Your task to perform on an android device: change alarm snooze length Image 0: 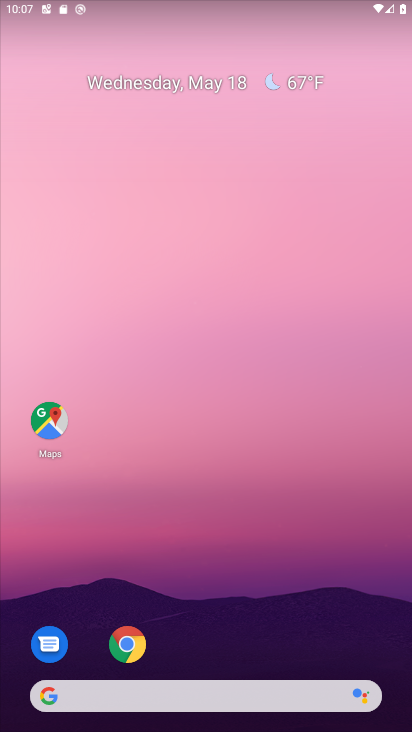
Step 0: drag from (253, 593) to (221, 174)
Your task to perform on an android device: change alarm snooze length Image 1: 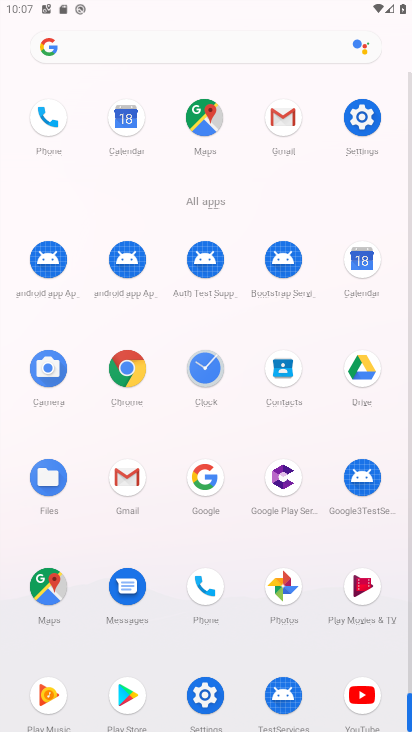
Step 1: click (207, 368)
Your task to perform on an android device: change alarm snooze length Image 2: 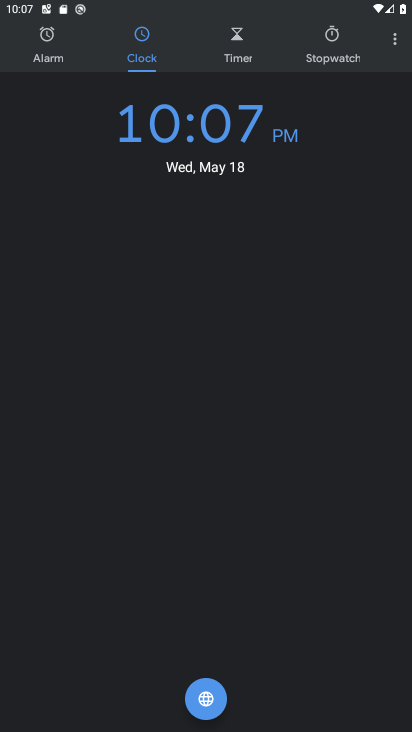
Step 2: click (397, 41)
Your task to perform on an android device: change alarm snooze length Image 3: 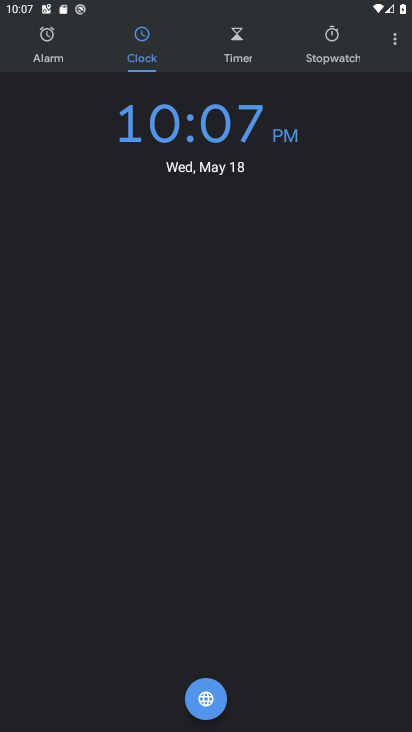
Step 3: click (397, 41)
Your task to perform on an android device: change alarm snooze length Image 4: 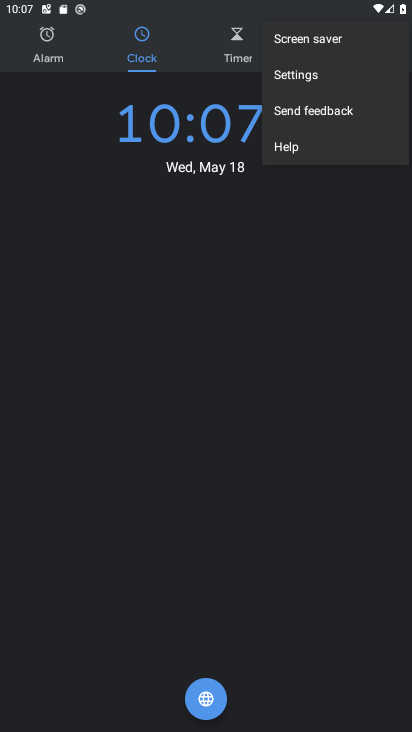
Step 4: click (305, 83)
Your task to perform on an android device: change alarm snooze length Image 5: 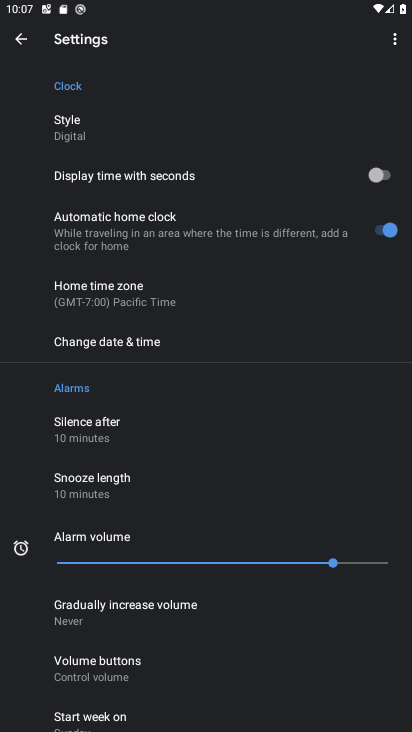
Step 5: click (104, 482)
Your task to perform on an android device: change alarm snooze length Image 6: 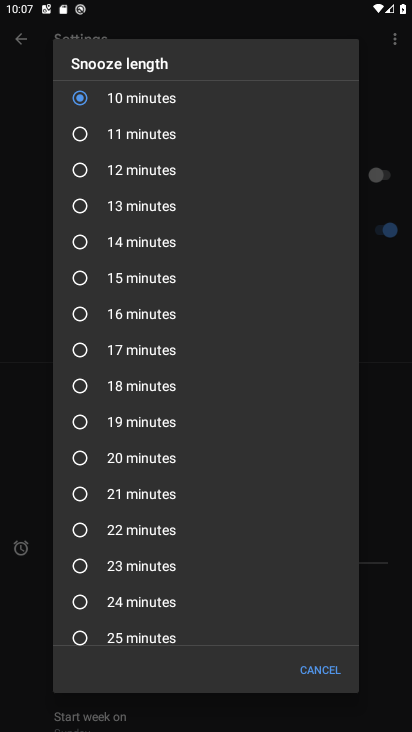
Step 6: click (89, 167)
Your task to perform on an android device: change alarm snooze length Image 7: 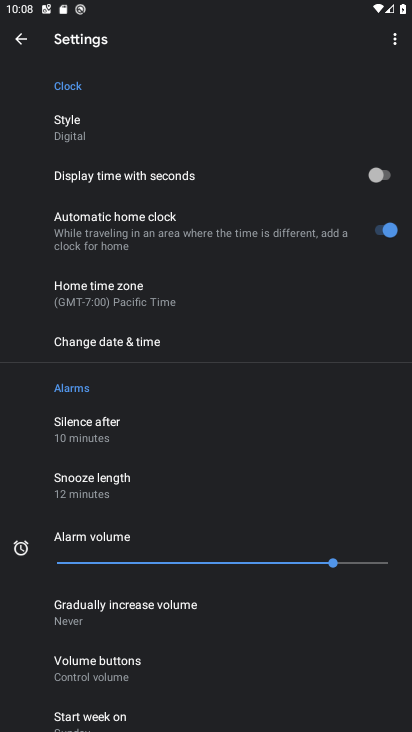
Step 7: task complete